Your task to perform on an android device: toggle notification dots Image 0: 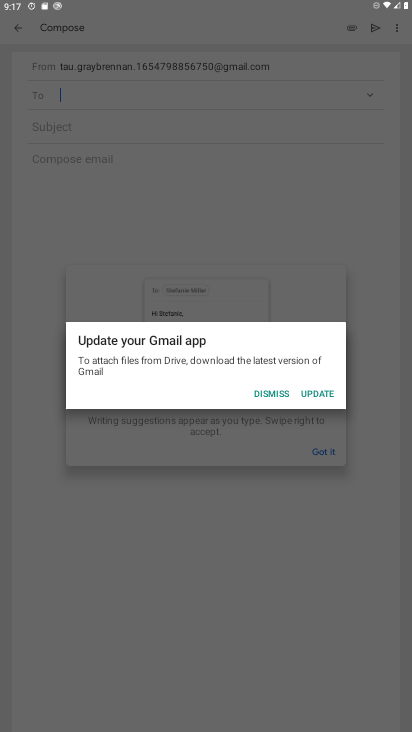
Step 0: press home button
Your task to perform on an android device: toggle notification dots Image 1: 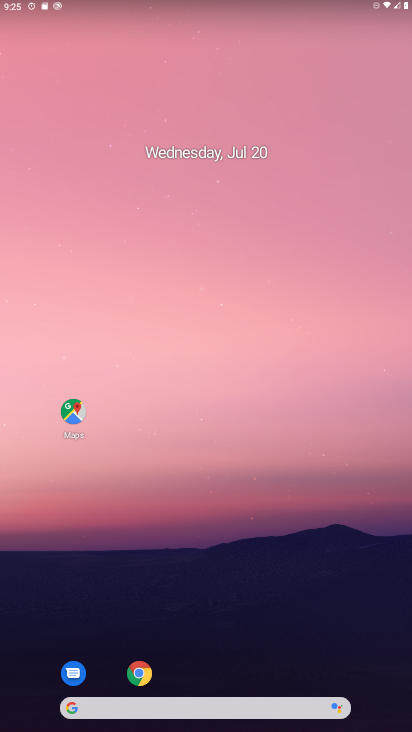
Step 1: drag from (378, 672) to (257, 5)
Your task to perform on an android device: toggle notification dots Image 2: 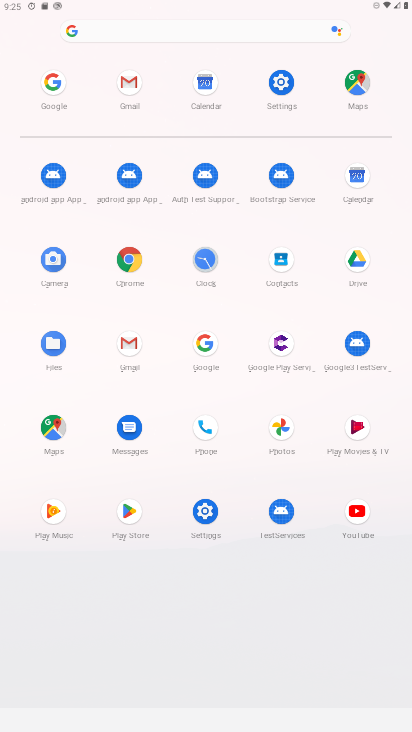
Step 2: click (205, 538)
Your task to perform on an android device: toggle notification dots Image 3: 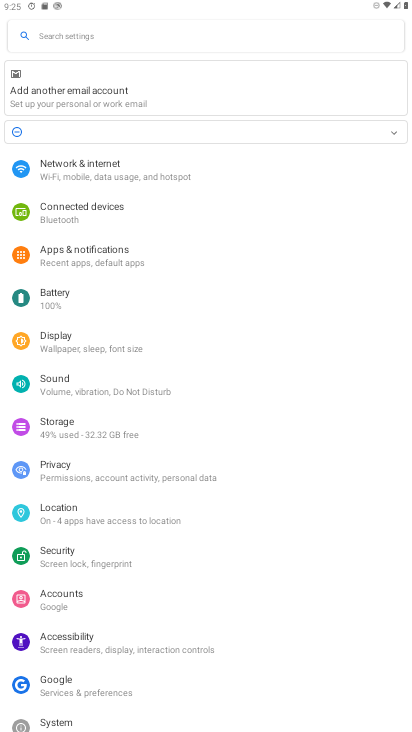
Step 3: click (79, 258)
Your task to perform on an android device: toggle notification dots Image 4: 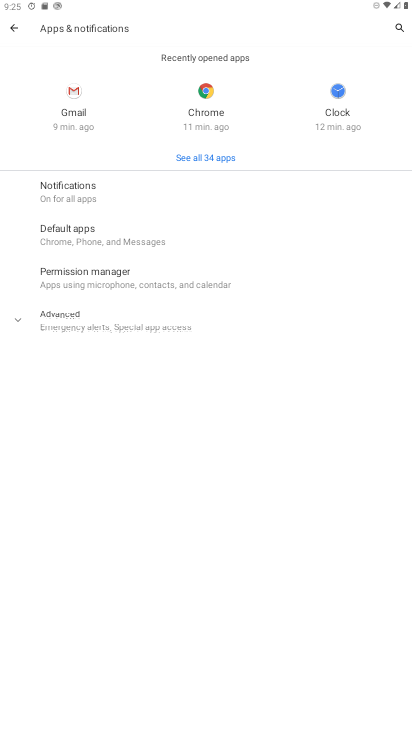
Step 4: click (102, 196)
Your task to perform on an android device: toggle notification dots Image 5: 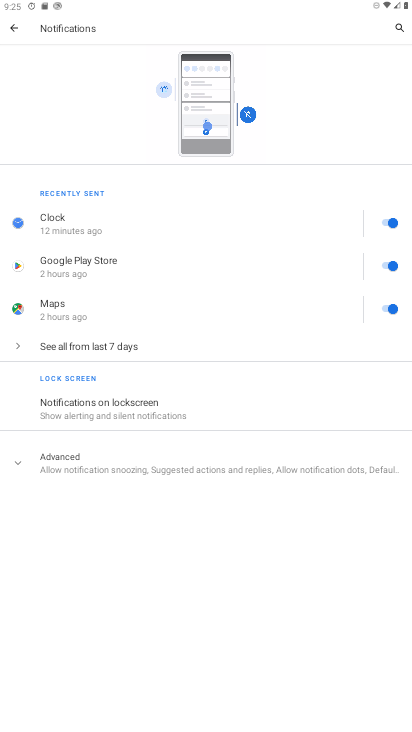
Step 5: click (66, 483)
Your task to perform on an android device: toggle notification dots Image 6: 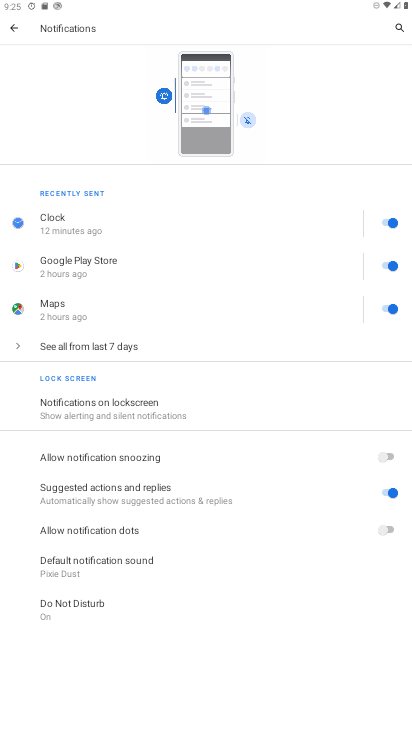
Step 6: click (127, 530)
Your task to perform on an android device: toggle notification dots Image 7: 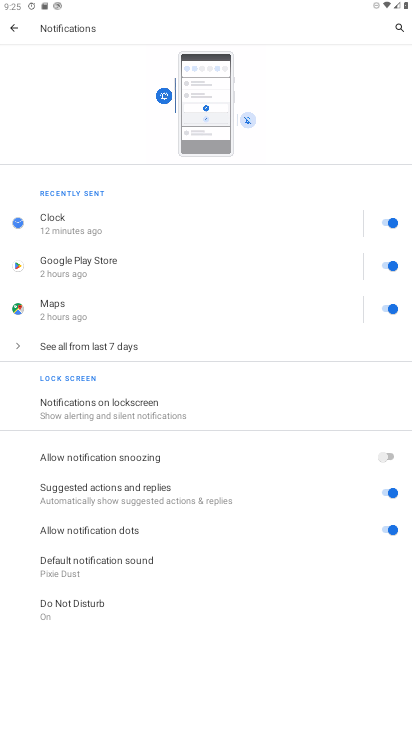
Step 7: task complete